Your task to perform on an android device: turn on wifi Image 0: 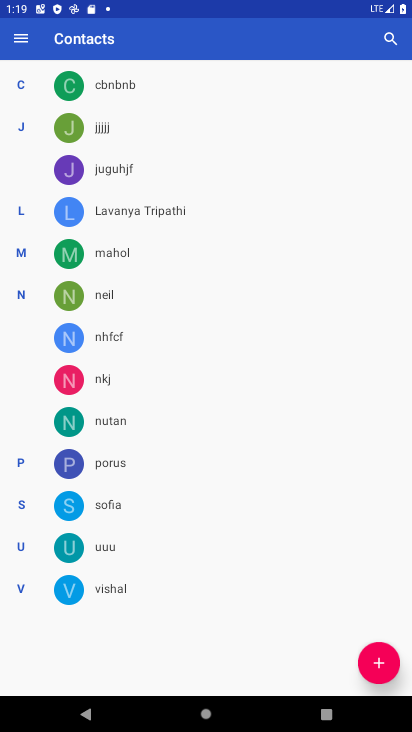
Step 0: press home button
Your task to perform on an android device: turn on wifi Image 1: 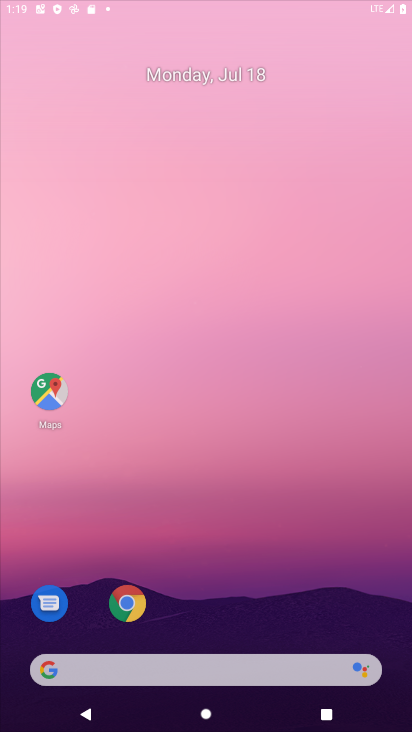
Step 1: press home button
Your task to perform on an android device: turn on wifi Image 2: 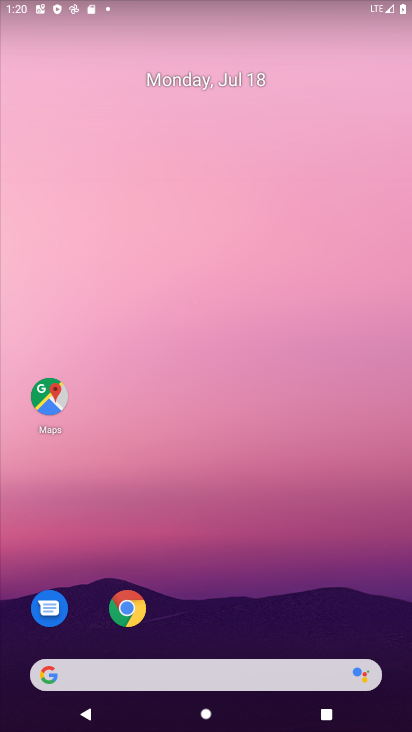
Step 2: drag from (226, 62) to (253, 530)
Your task to perform on an android device: turn on wifi Image 3: 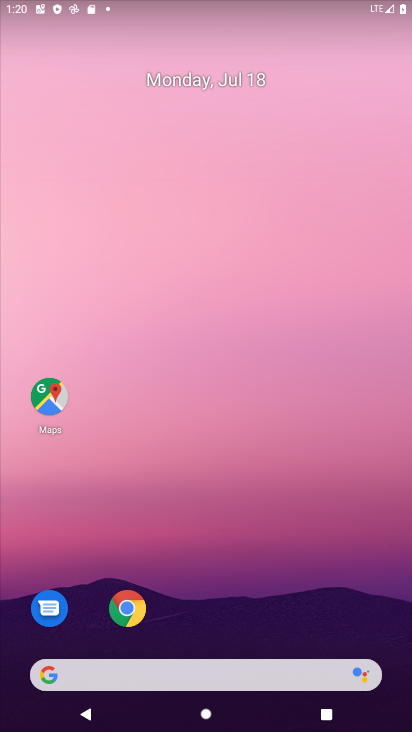
Step 3: drag from (172, 4) to (164, 517)
Your task to perform on an android device: turn on wifi Image 4: 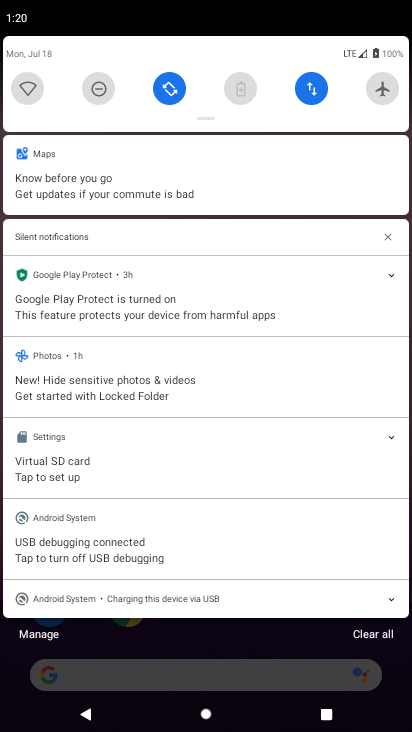
Step 4: click (20, 82)
Your task to perform on an android device: turn on wifi Image 5: 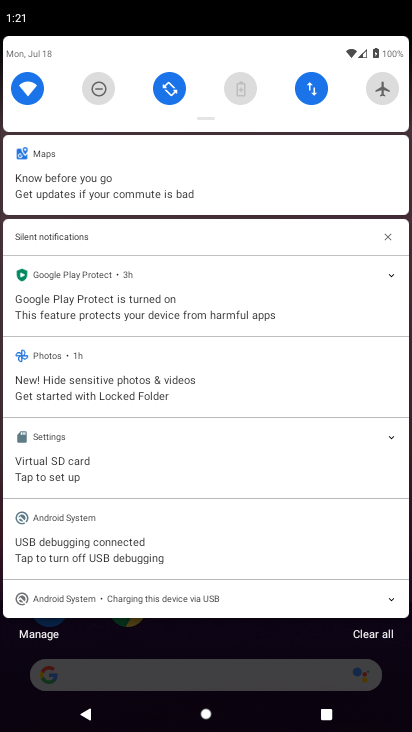
Step 5: task complete